Your task to perform on an android device: Go to internet settings Image 0: 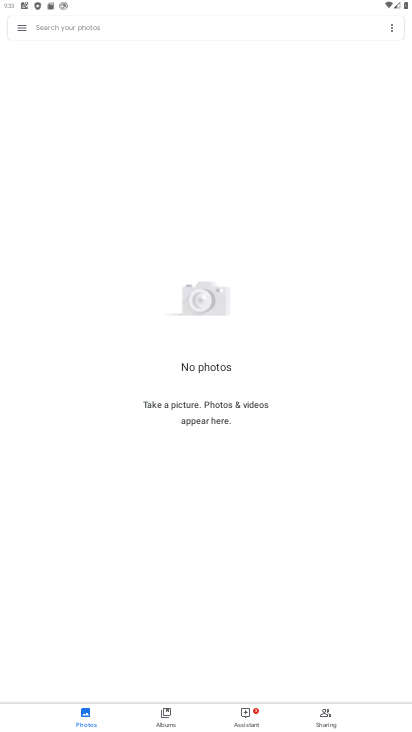
Step 0: press home button
Your task to perform on an android device: Go to internet settings Image 1: 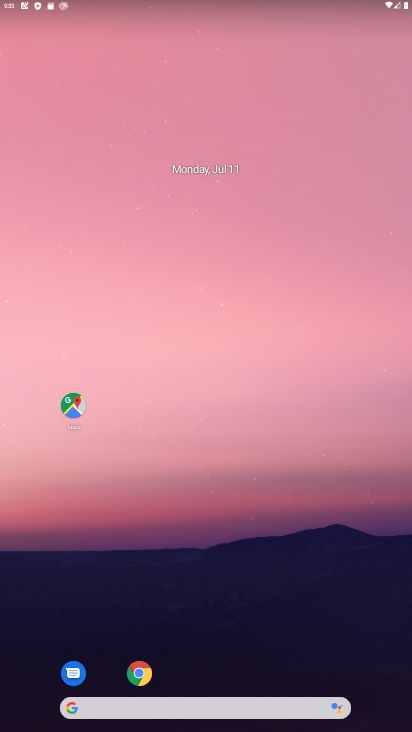
Step 1: drag from (295, 635) to (345, 22)
Your task to perform on an android device: Go to internet settings Image 2: 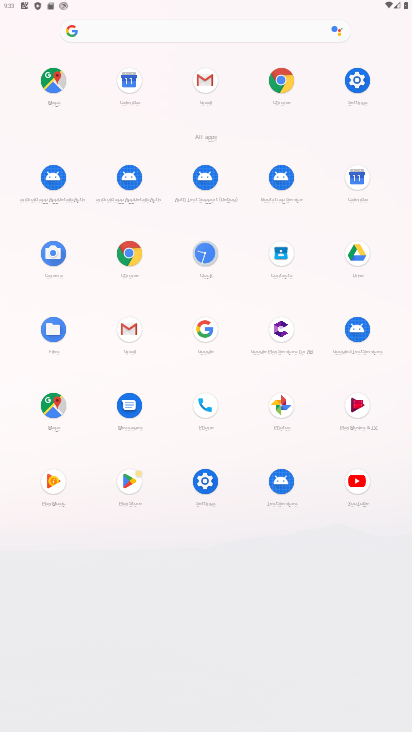
Step 2: click (201, 537)
Your task to perform on an android device: Go to internet settings Image 3: 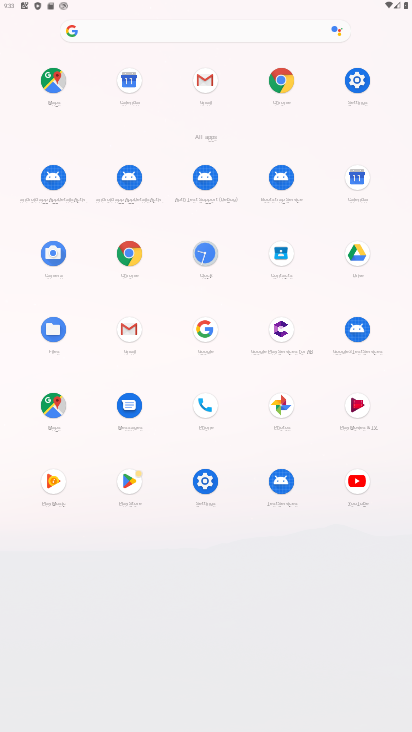
Step 3: drag from (210, 492) to (245, 41)
Your task to perform on an android device: Go to internet settings Image 4: 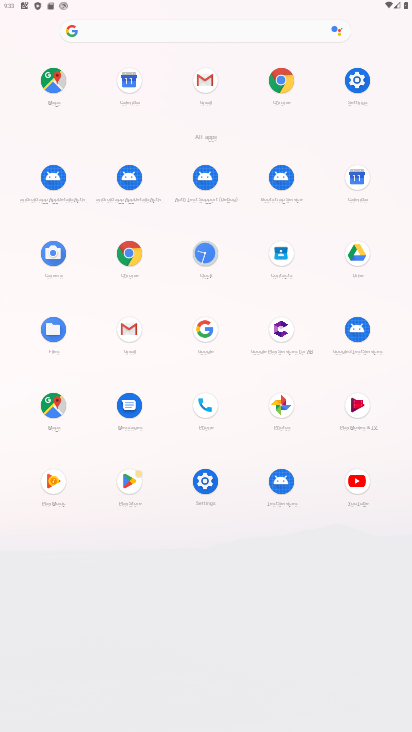
Step 4: click (288, 79)
Your task to perform on an android device: Go to internet settings Image 5: 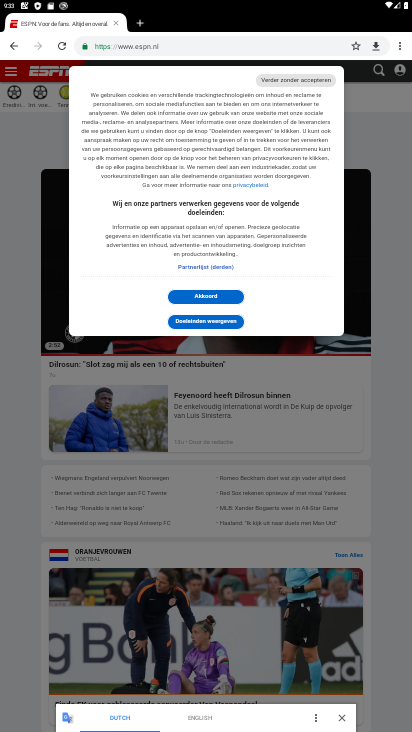
Step 5: press home button
Your task to perform on an android device: Go to internet settings Image 6: 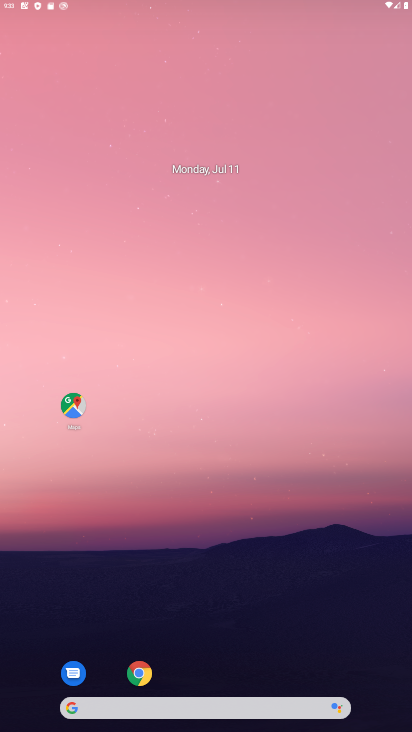
Step 6: drag from (217, 617) to (267, 5)
Your task to perform on an android device: Go to internet settings Image 7: 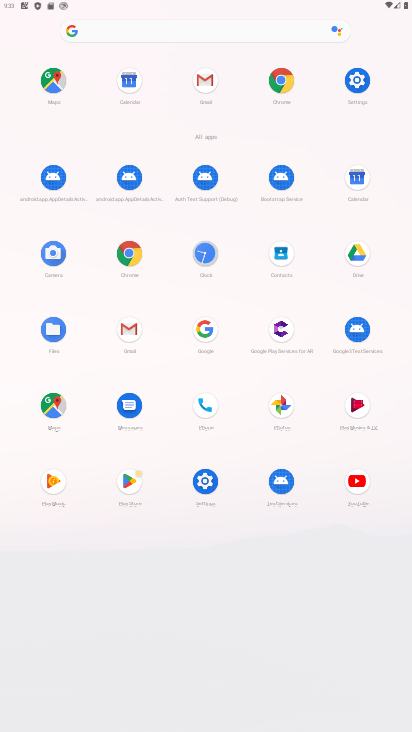
Step 7: click (200, 488)
Your task to perform on an android device: Go to internet settings Image 8: 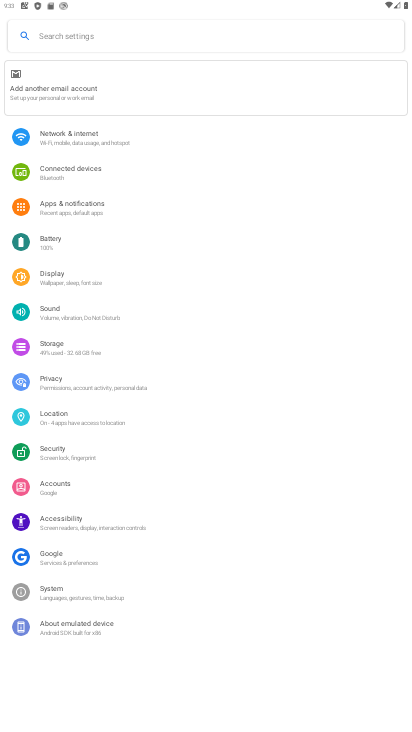
Step 8: click (134, 133)
Your task to perform on an android device: Go to internet settings Image 9: 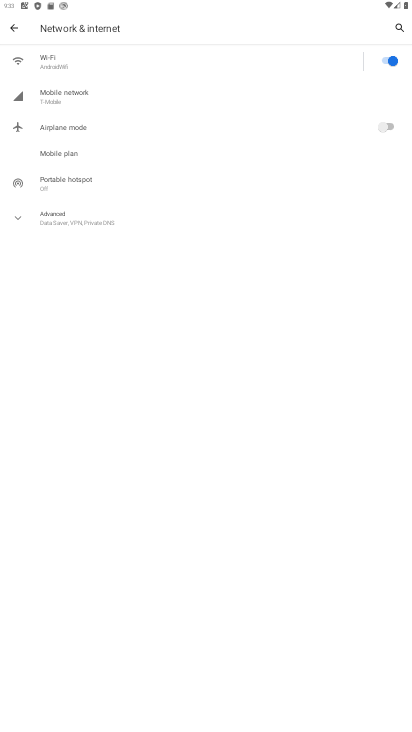
Step 9: task complete